Your task to perform on an android device: Add "bose soundsport free" to the cart on bestbuy.com Image 0: 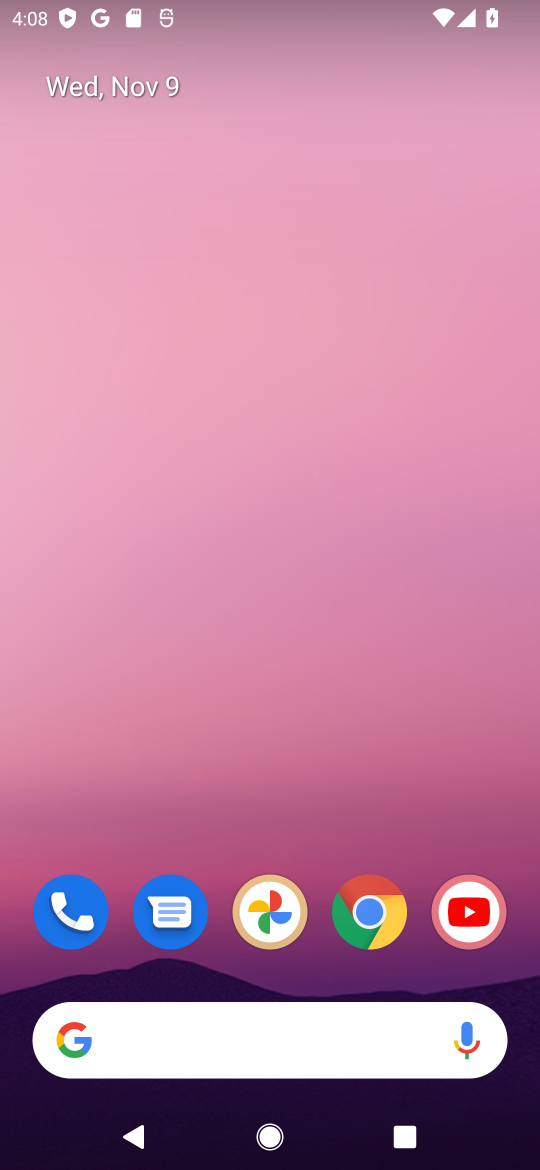
Step 0: click (365, 914)
Your task to perform on an android device: Add "bose soundsport free" to the cart on bestbuy.com Image 1: 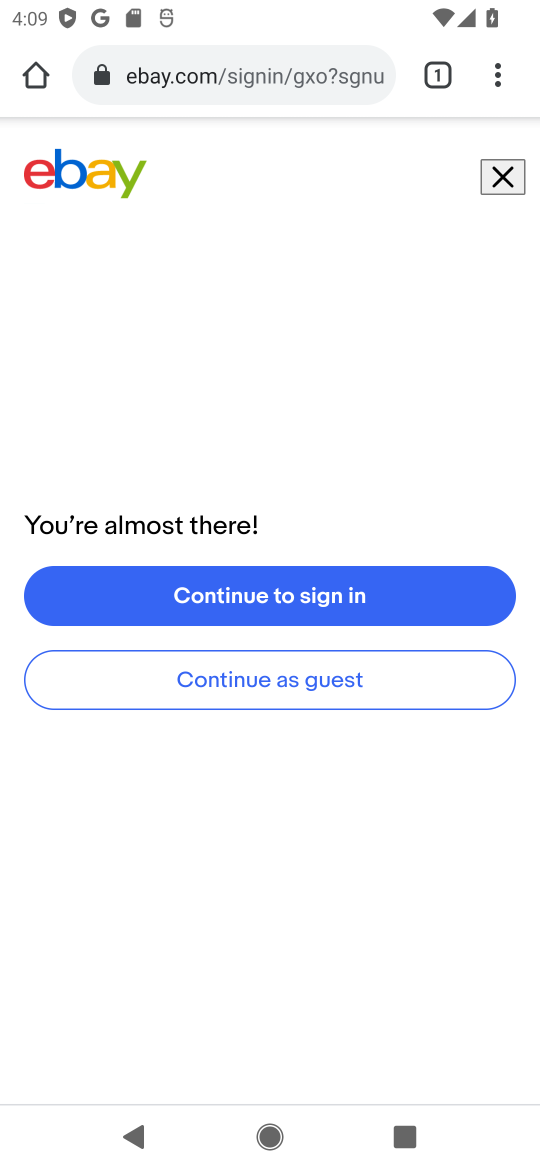
Step 1: click (311, 93)
Your task to perform on an android device: Add "bose soundsport free" to the cart on bestbuy.com Image 2: 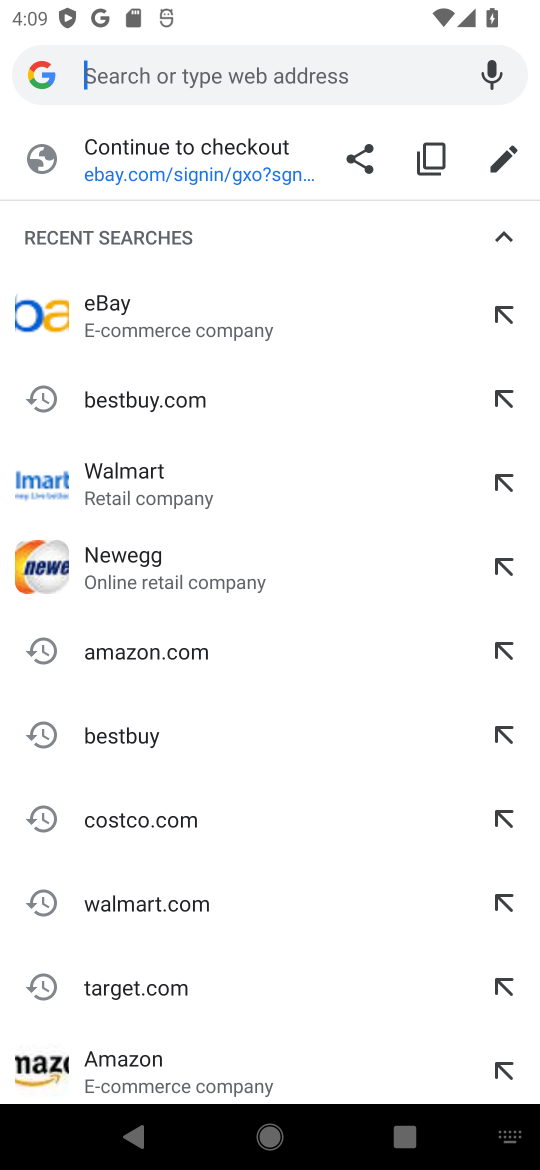
Step 2: type "bestbuy.com"
Your task to perform on an android device: Add "bose soundsport free" to the cart on bestbuy.com Image 3: 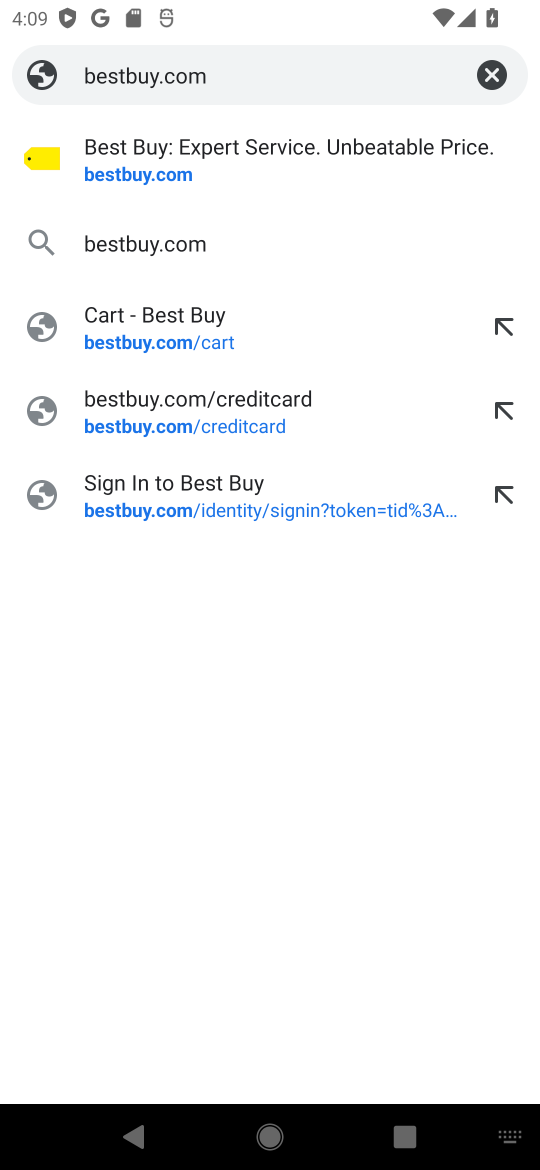
Step 3: click (150, 252)
Your task to perform on an android device: Add "bose soundsport free" to the cart on bestbuy.com Image 4: 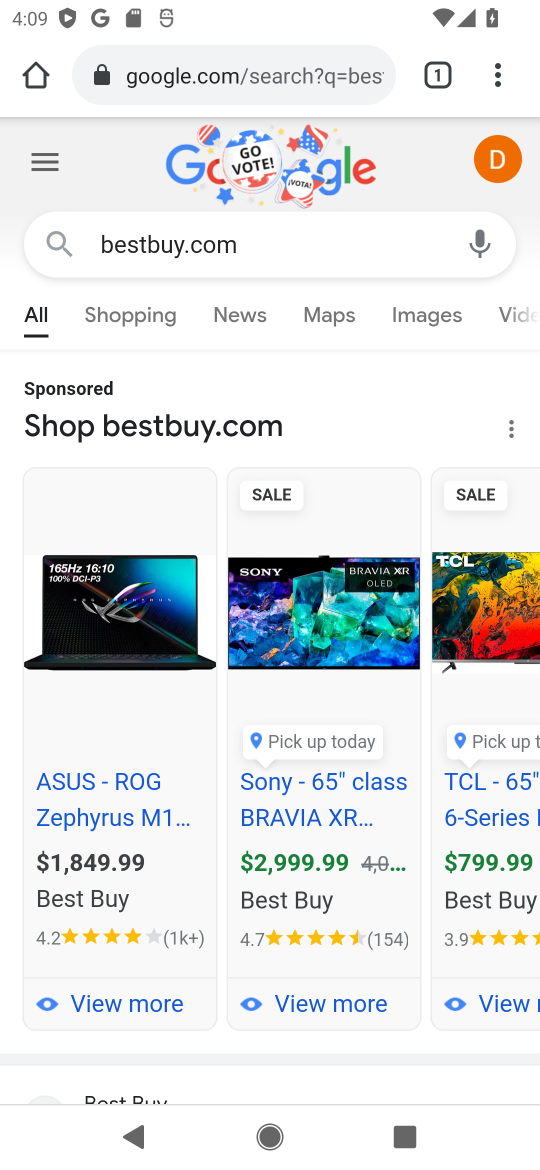
Step 4: drag from (172, 813) to (231, 378)
Your task to perform on an android device: Add "bose soundsport free" to the cart on bestbuy.com Image 5: 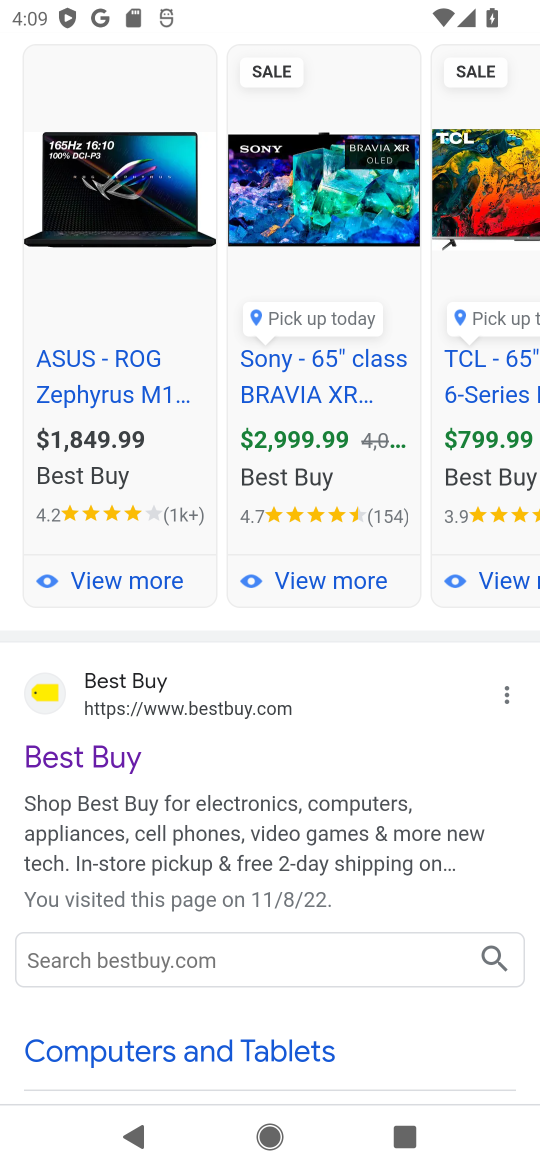
Step 5: click (94, 756)
Your task to perform on an android device: Add "bose soundsport free" to the cart on bestbuy.com Image 6: 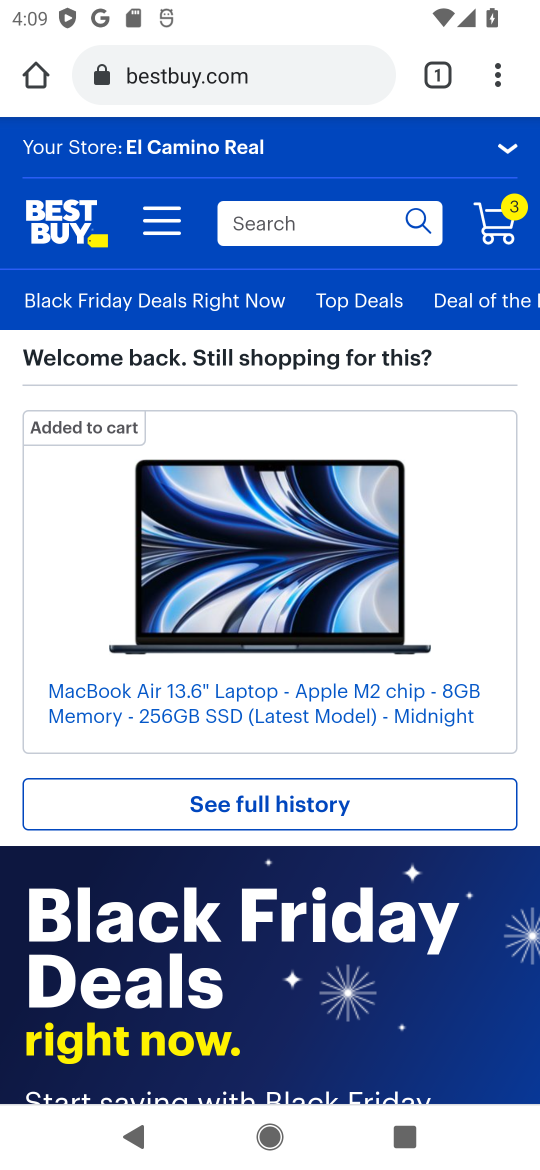
Step 6: click (289, 227)
Your task to perform on an android device: Add "bose soundsport free" to the cart on bestbuy.com Image 7: 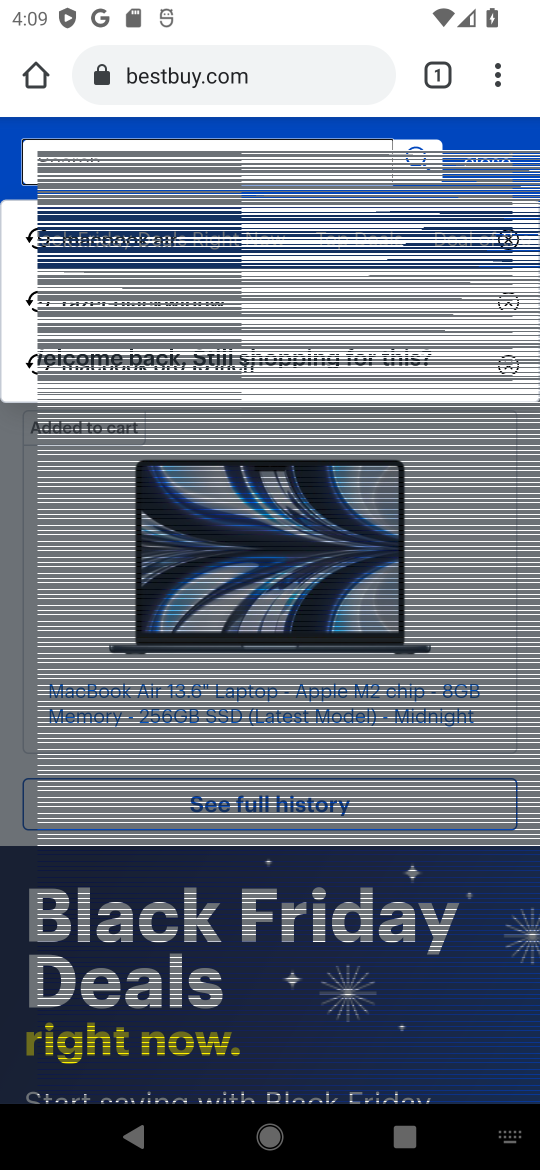
Step 7: type "bose soundsport free"
Your task to perform on an android device: Add "bose soundsport free" to the cart on bestbuy.com Image 8: 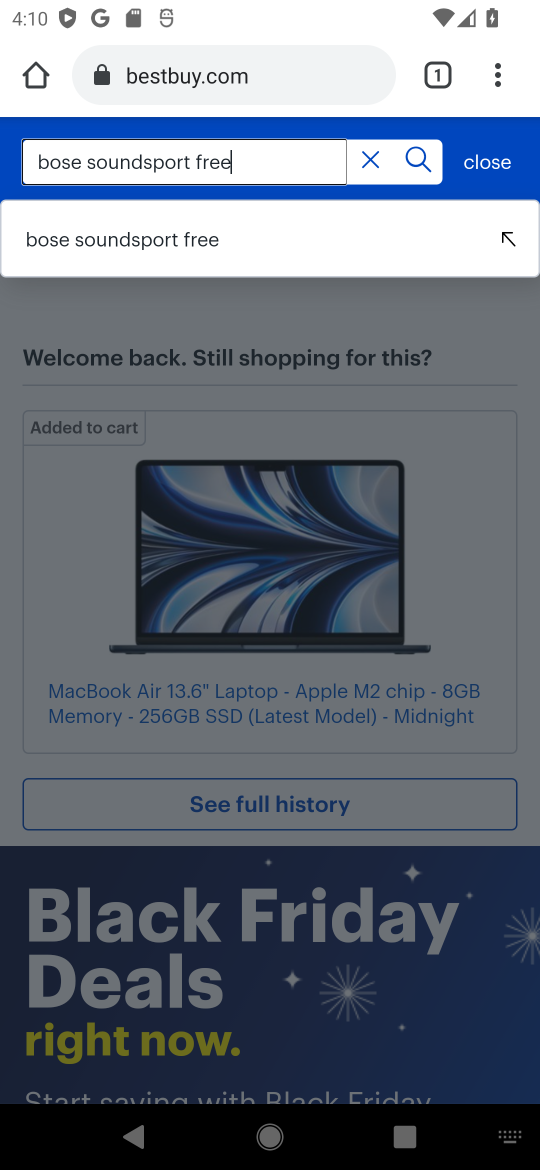
Step 8: click (179, 244)
Your task to perform on an android device: Add "bose soundsport free" to the cart on bestbuy.com Image 9: 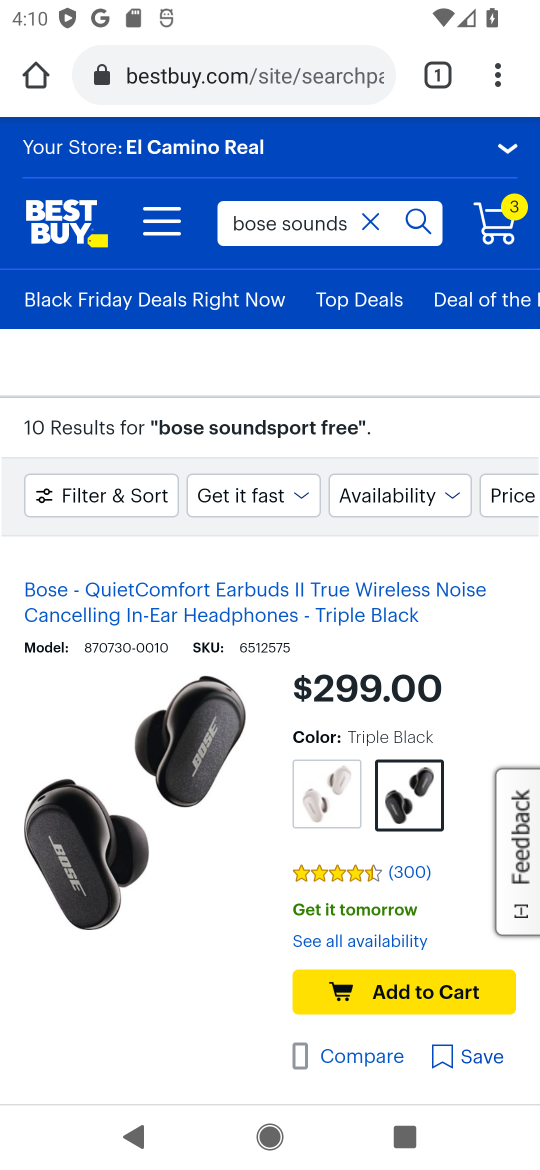
Step 9: click (414, 985)
Your task to perform on an android device: Add "bose soundsport free" to the cart on bestbuy.com Image 10: 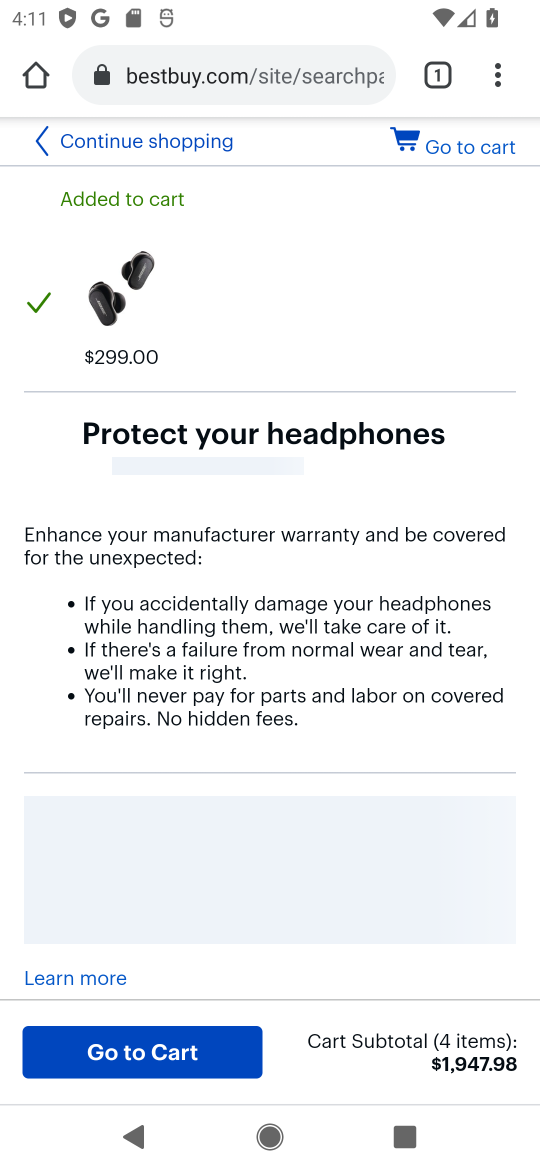
Step 10: click (166, 1040)
Your task to perform on an android device: Add "bose soundsport free" to the cart on bestbuy.com Image 11: 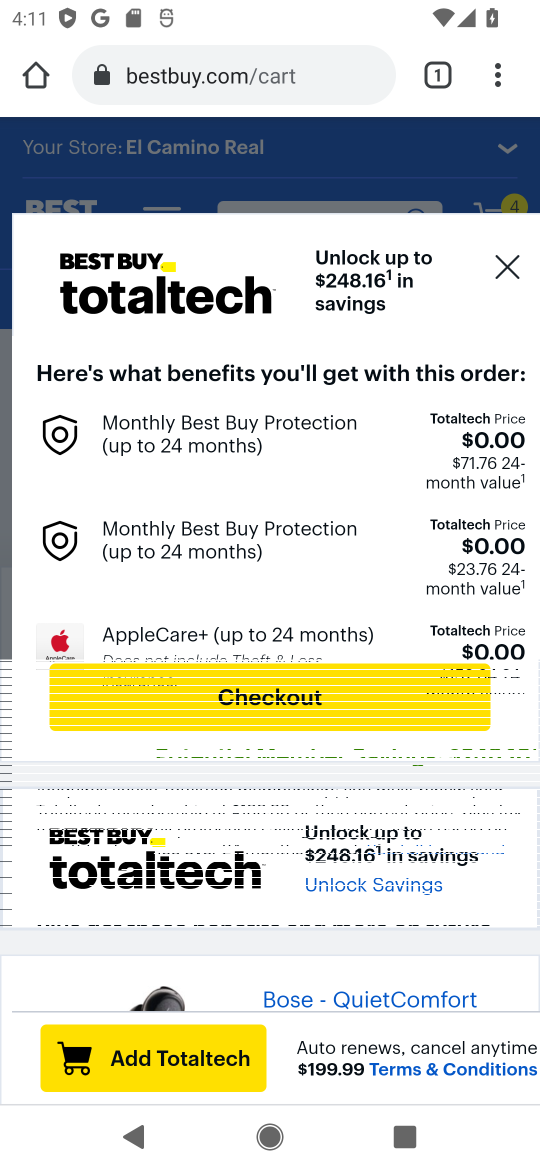
Step 11: click (507, 259)
Your task to perform on an android device: Add "bose soundsport free" to the cart on bestbuy.com Image 12: 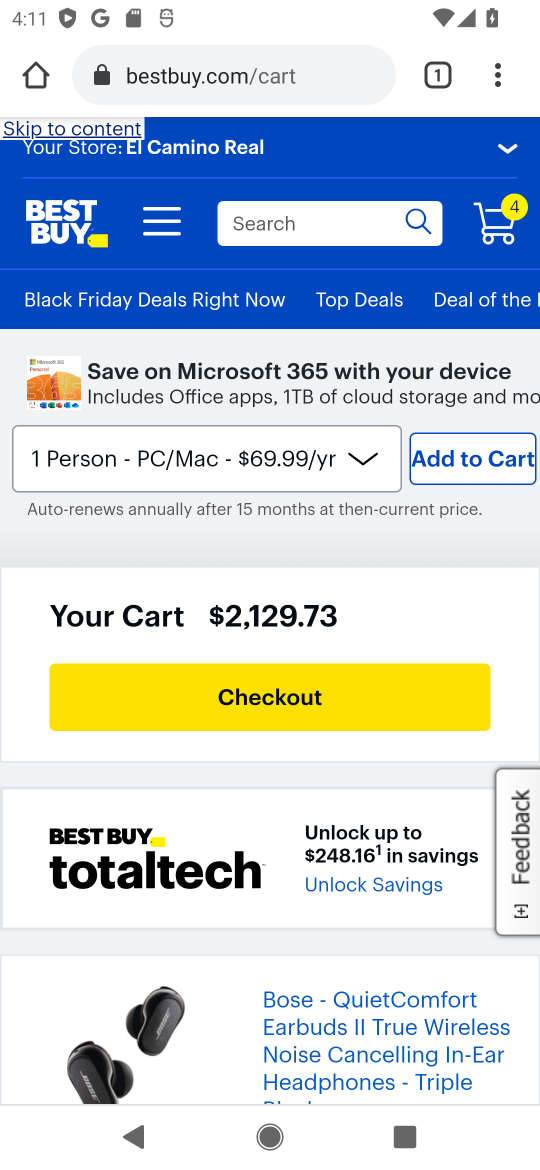
Step 12: task complete